Your task to perform on an android device: toggle airplane mode Image 0: 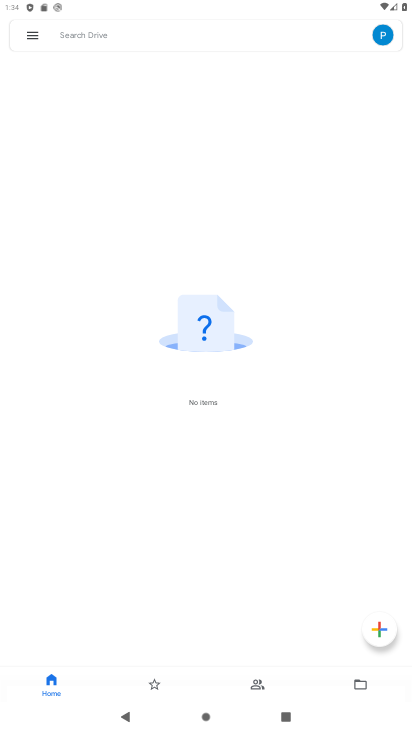
Step 0: press home button
Your task to perform on an android device: toggle airplane mode Image 1: 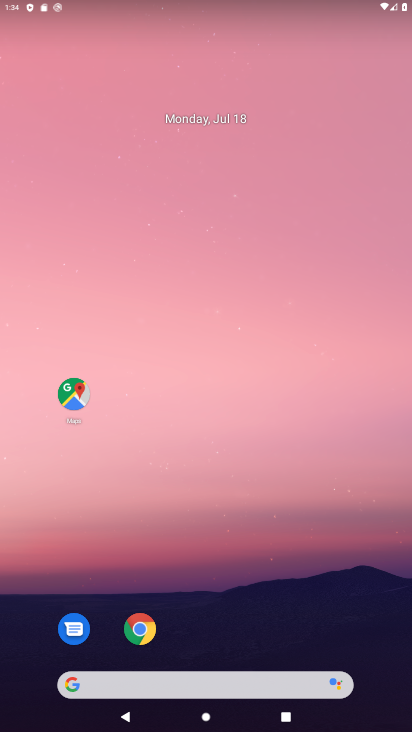
Step 1: drag from (272, 670) to (278, 172)
Your task to perform on an android device: toggle airplane mode Image 2: 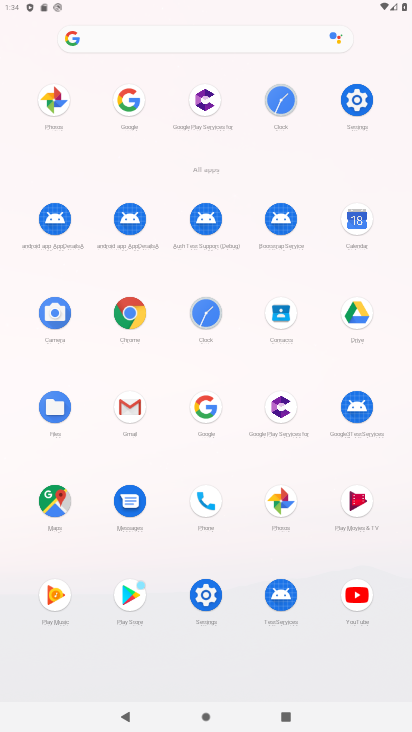
Step 2: click (356, 100)
Your task to perform on an android device: toggle airplane mode Image 3: 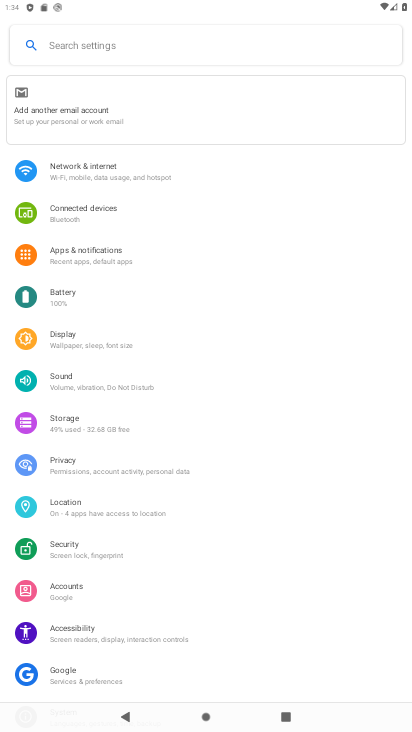
Step 3: click (147, 174)
Your task to perform on an android device: toggle airplane mode Image 4: 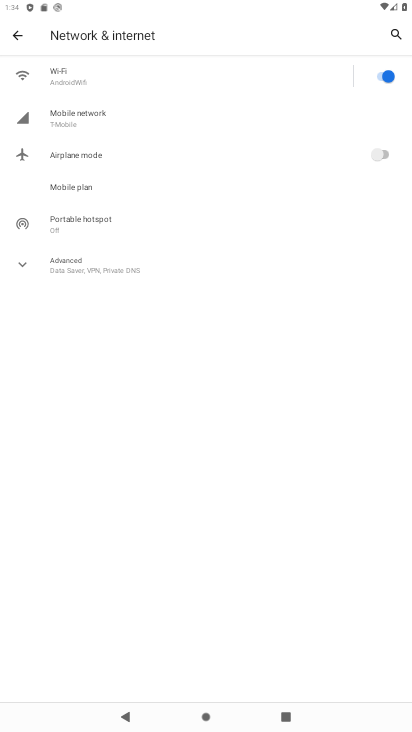
Step 4: click (379, 154)
Your task to perform on an android device: toggle airplane mode Image 5: 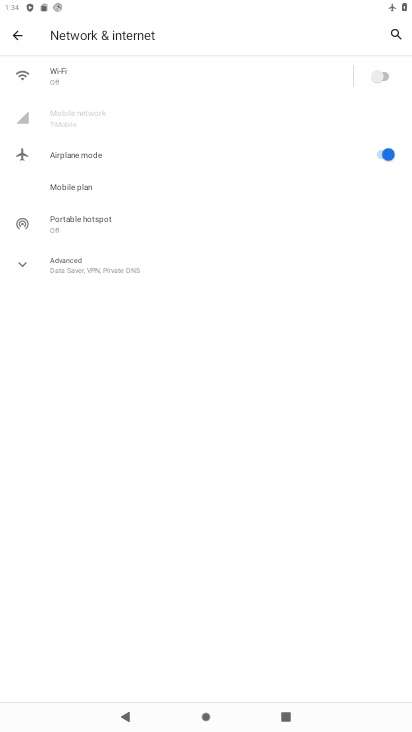
Step 5: task complete